Your task to perform on an android device: Go to Yahoo.com Image 0: 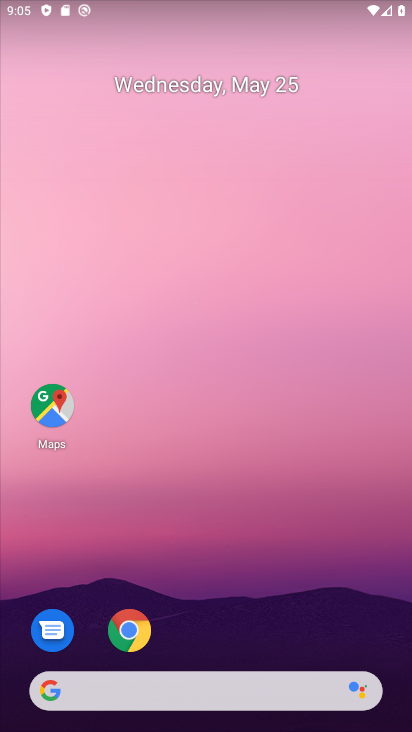
Step 0: click (133, 628)
Your task to perform on an android device: Go to Yahoo.com Image 1: 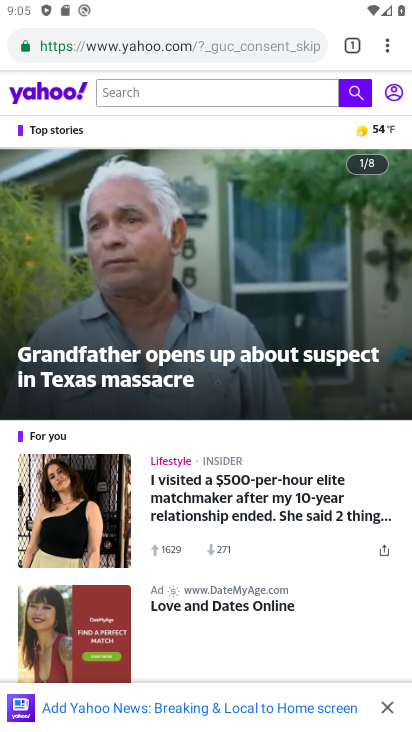
Step 1: task complete